Your task to perform on an android device: Is it going to rain tomorrow? Image 0: 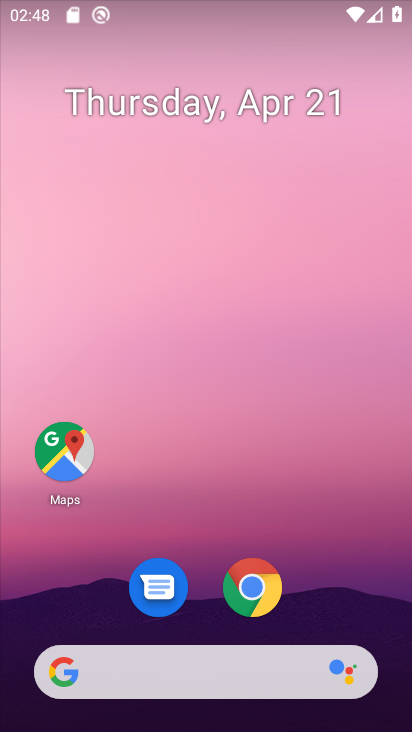
Step 0: click (240, 673)
Your task to perform on an android device: Is it going to rain tomorrow? Image 1: 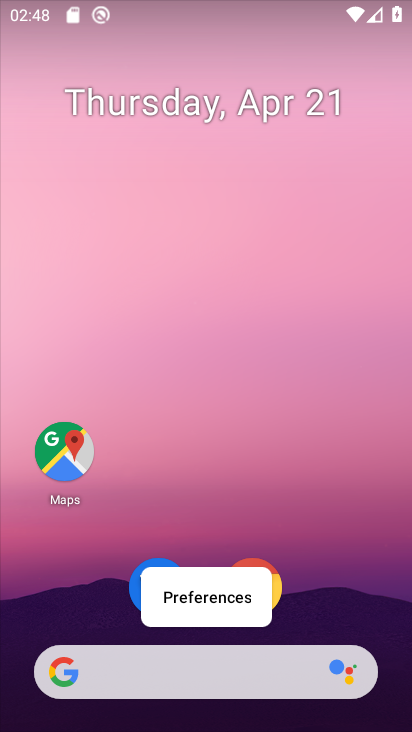
Step 1: click (241, 673)
Your task to perform on an android device: Is it going to rain tomorrow? Image 2: 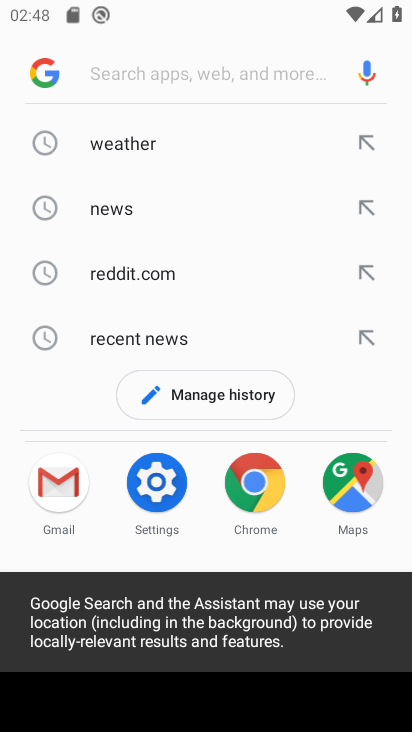
Step 2: click (145, 144)
Your task to perform on an android device: Is it going to rain tomorrow? Image 3: 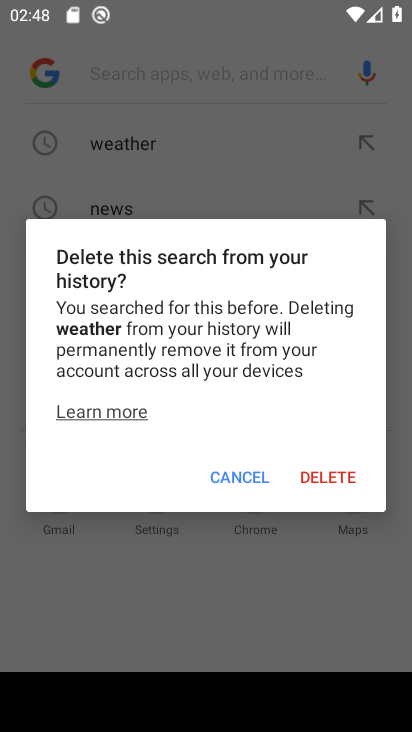
Step 3: click (209, 475)
Your task to perform on an android device: Is it going to rain tomorrow? Image 4: 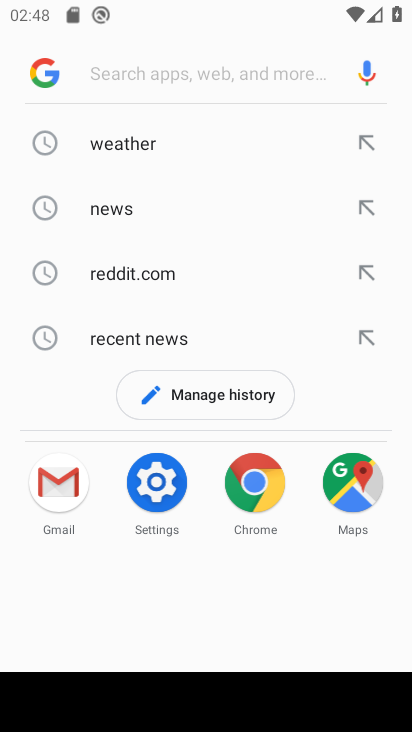
Step 4: click (137, 143)
Your task to perform on an android device: Is it going to rain tomorrow? Image 5: 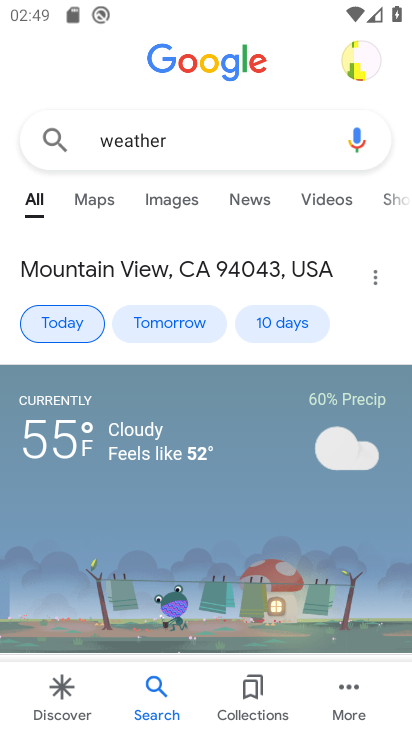
Step 5: click (174, 323)
Your task to perform on an android device: Is it going to rain tomorrow? Image 6: 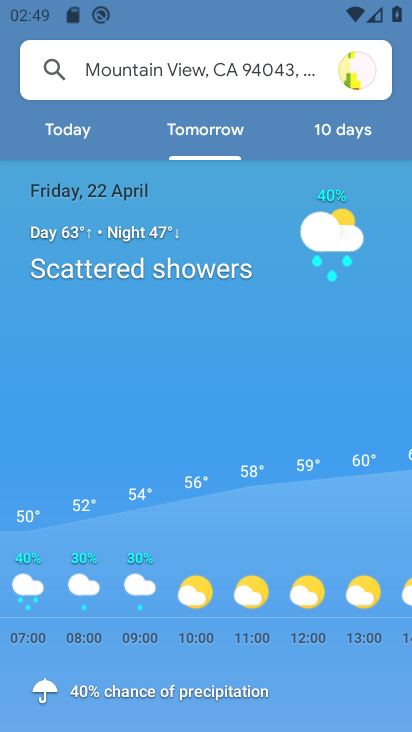
Step 6: task complete